Your task to perform on an android device: turn off data saver in the chrome app Image 0: 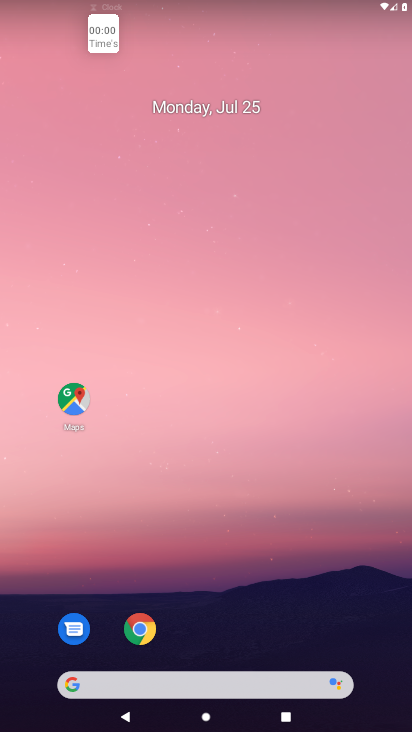
Step 0: drag from (269, 351) to (336, 59)
Your task to perform on an android device: turn off data saver in the chrome app Image 1: 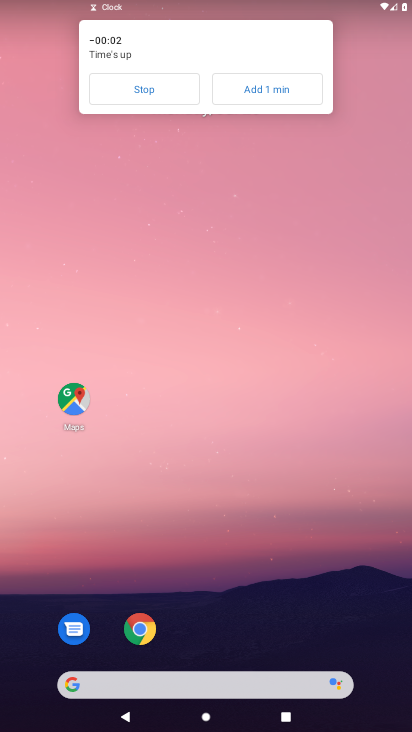
Step 1: drag from (215, 604) to (280, 155)
Your task to perform on an android device: turn off data saver in the chrome app Image 2: 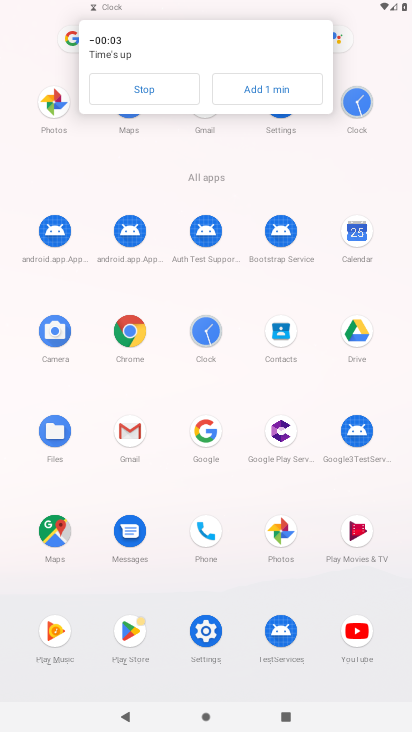
Step 2: click (125, 85)
Your task to perform on an android device: turn off data saver in the chrome app Image 3: 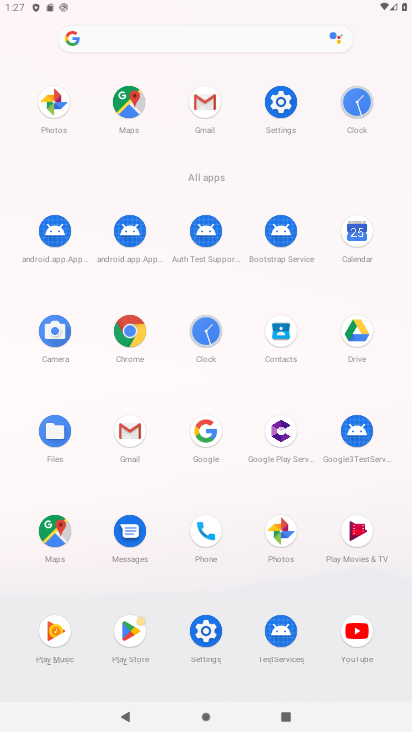
Step 3: click (122, 320)
Your task to perform on an android device: turn off data saver in the chrome app Image 4: 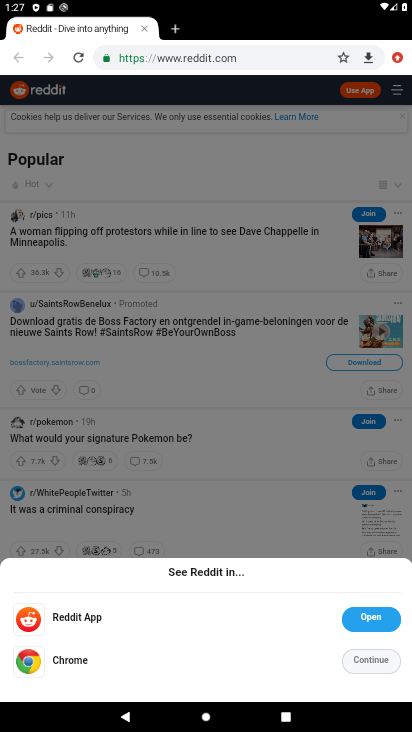
Step 4: drag from (393, 57) to (294, 416)
Your task to perform on an android device: turn off data saver in the chrome app Image 5: 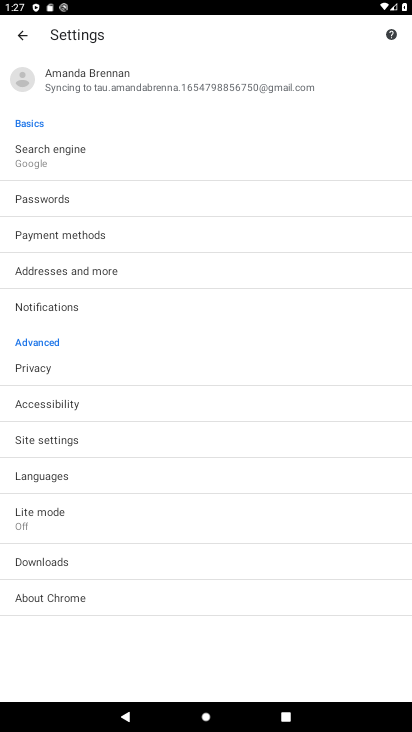
Step 5: drag from (175, 477) to (219, 135)
Your task to perform on an android device: turn off data saver in the chrome app Image 6: 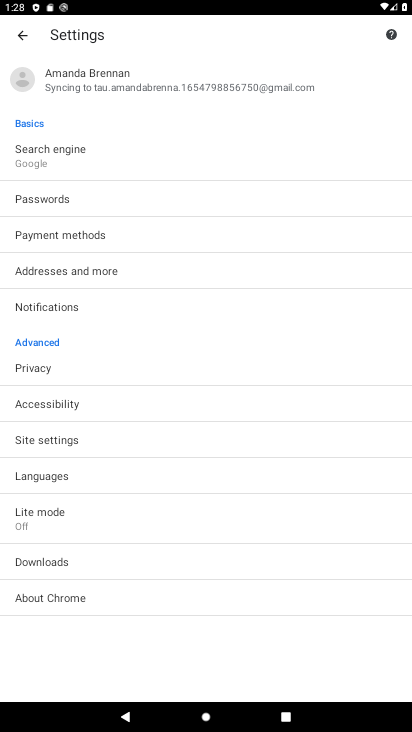
Step 6: click (72, 513)
Your task to perform on an android device: turn off data saver in the chrome app Image 7: 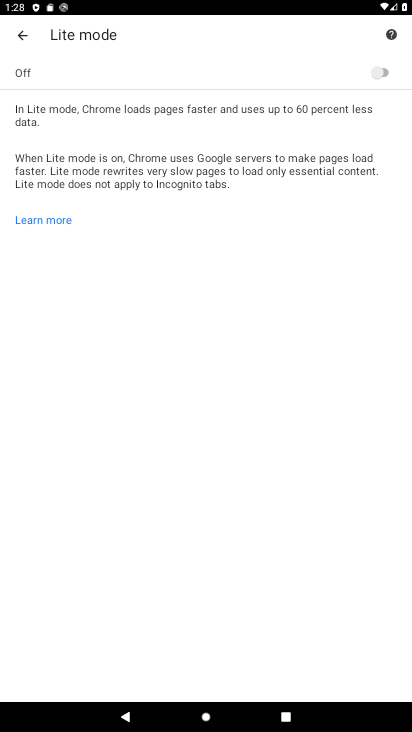
Step 7: task complete